Your task to perform on an android device: delete the emails in spam in the gmail app Image 0: 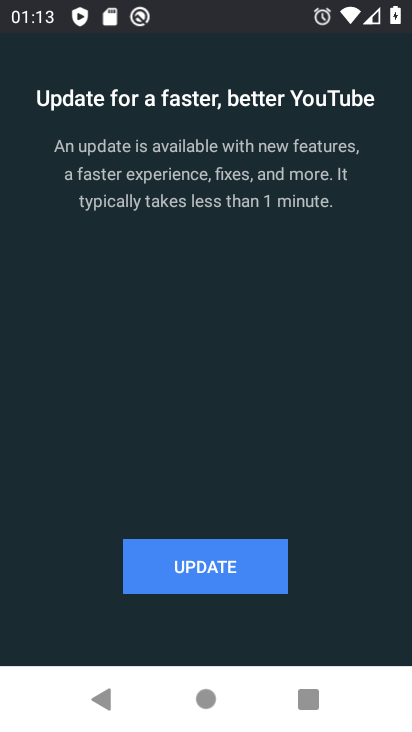
Step 0: press home button
Your task to perform on an android device: delete the emails in spam in the gmail app Image 1: 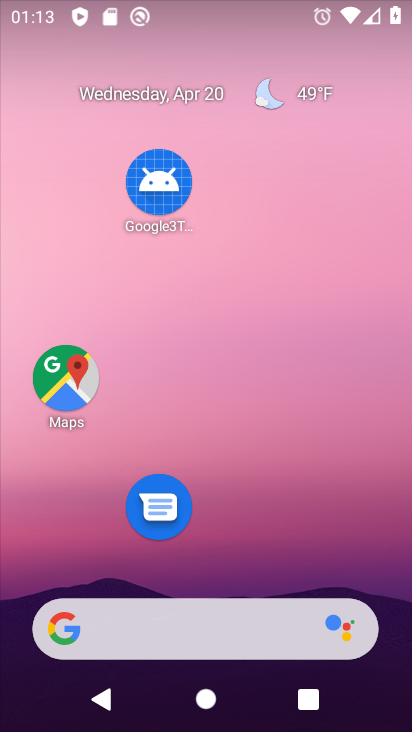
Step 1: drag from (243, 566) to (131, 61)
Your task to perform on an android device: delete the emails in spam in the gmail app Image 2: 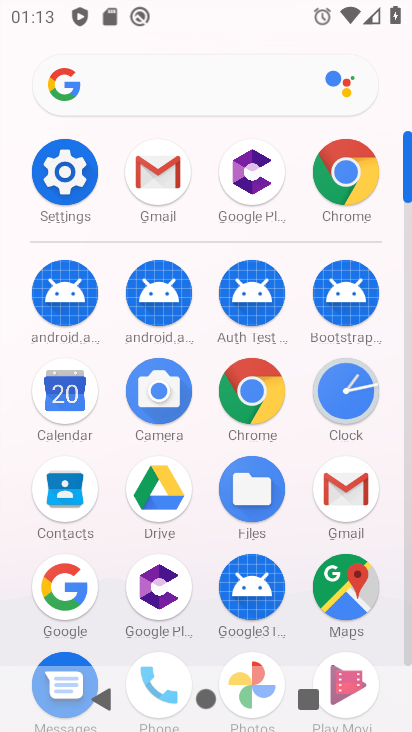
Step 2: click (342, 498)
Your task to perform on an android device: delete the emails in spam in the gmail app Image 3: 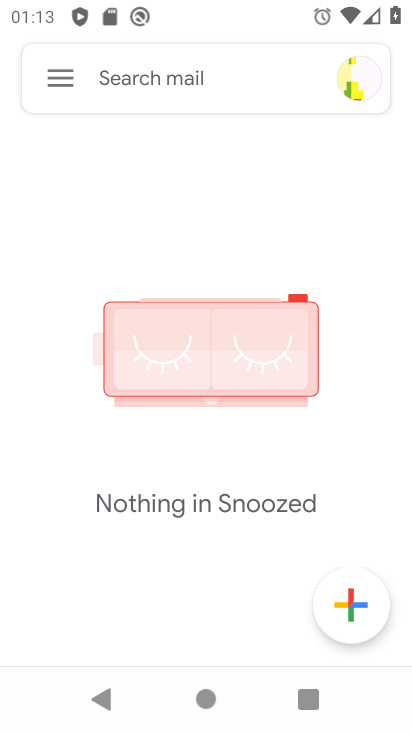
Step 3: click (56, 66)
Your task to perform on an android device: delete the emails in spam in the gmail app Image 4: 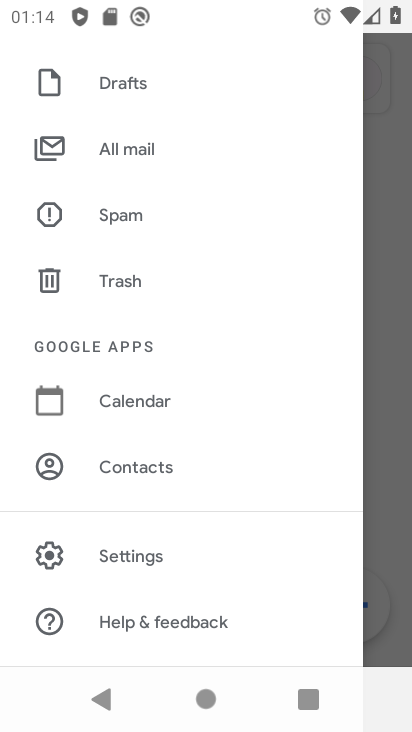
Step 4: click (123, 218)
Your task to perform on an android device: delete the emails in spam in the gmail app Image 5: 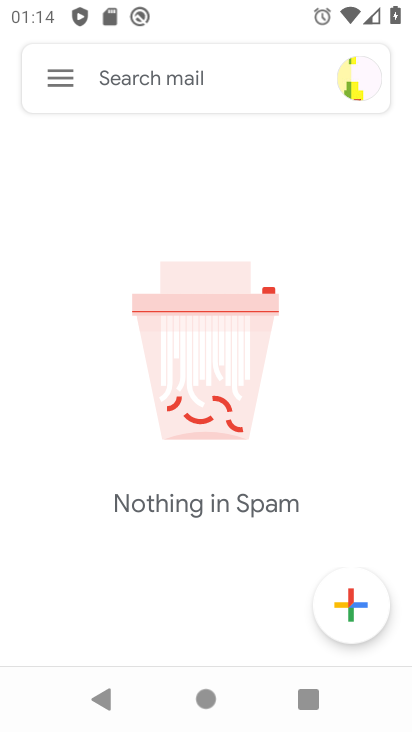
Step 5: task complete